Your task to perform on an android device: Show me popular videos on Youtube Image 0: 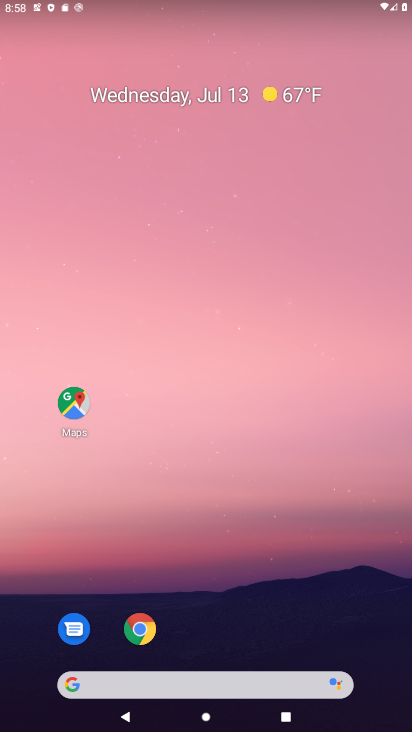
Step 0: drag from (210, 640) to (229, 101)
Your task to perform on an android device: Show me popular videos on Youtube Image 1: 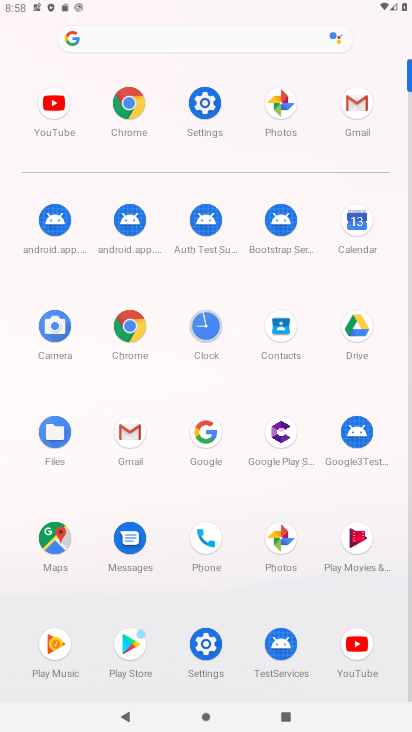
Step 1: click (362, 640)
Your task to perform on an android device: Show me popular videos on Youtube Image 2: 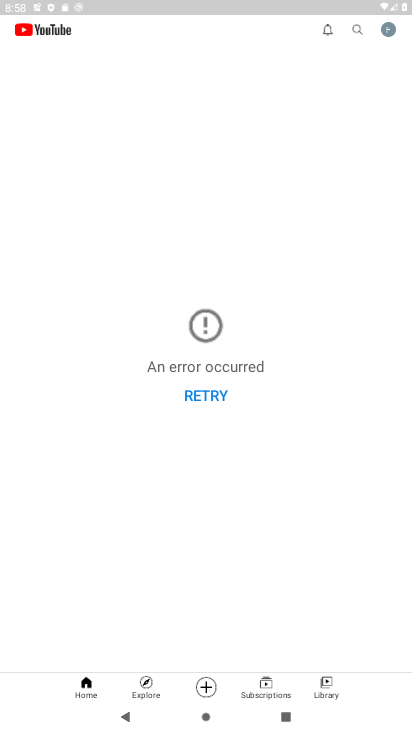
Step 2: click (209, 391)
Your task to perform on an android device: Show me popular videos on Youtube Image 3: 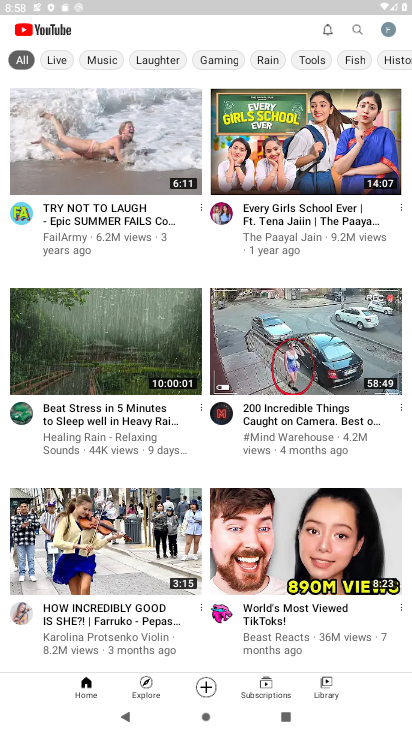
Step 3: click (146, 688)
Your task to perform on an android device: Show me popular videos on Youtube Image 4: 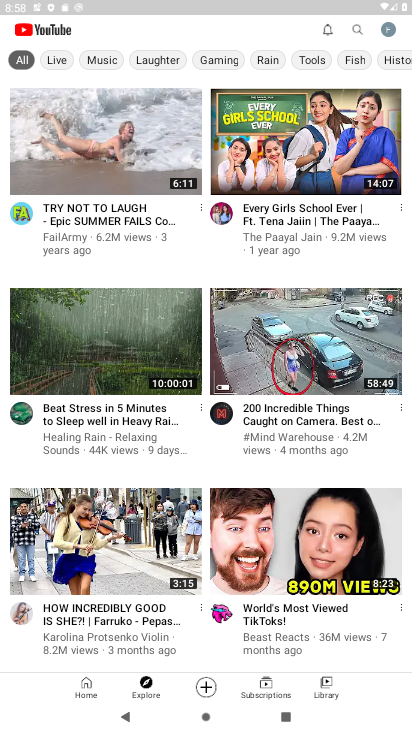
Step 4: click (23, 57)
Your task to perform on an android device: Show me popular videos on Youtube Image 5: 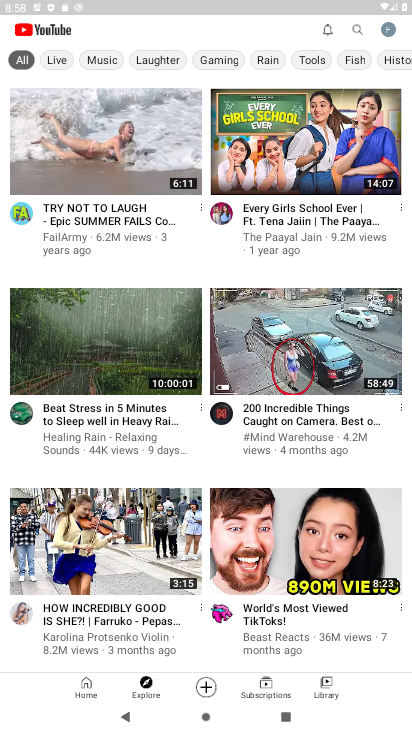
Step 5: drag from (121, 173) to (117, 521)
Your task to perform on an android device: Show me popular videos on Youtube Image 6: 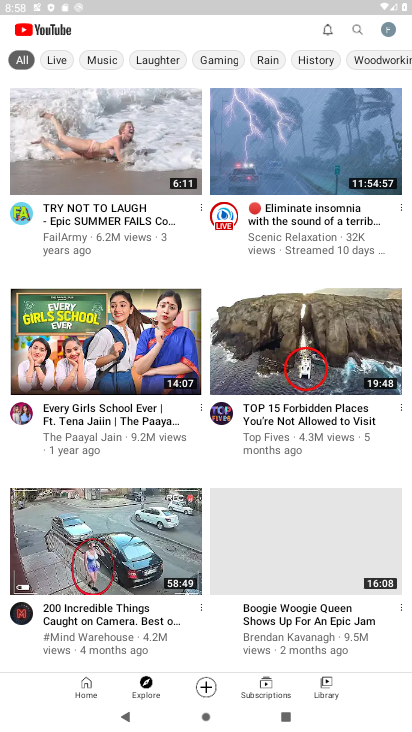
Step 6: drag from (112, 575) to (126, 286)
Your task to perform on an android device: Show me popular videos on Youtube Image 7: 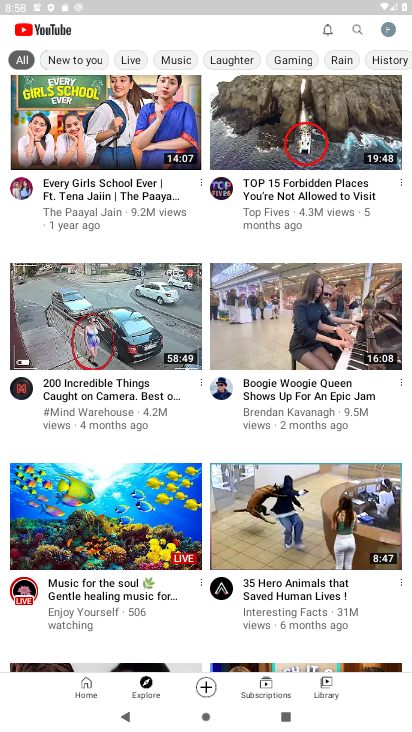
Step 7: click (92, 693)
Your task to perform on an android device: Show me popular videos on Youtube Image 8: 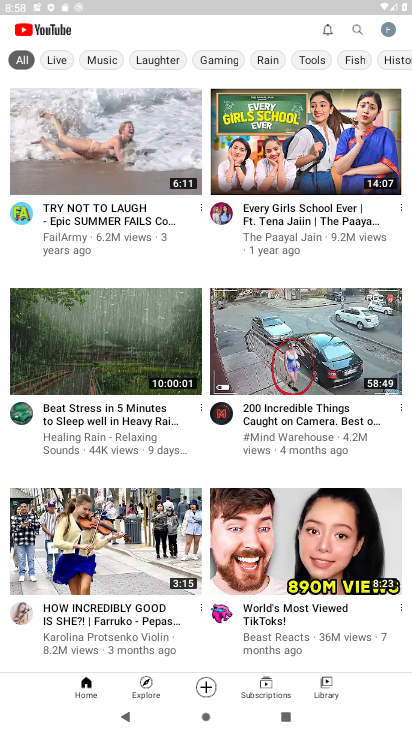
Step 8: drag from (175, 526) to (180, 368)
Your task to perform on an android device: Show me popular videos on Youtube Image 9: 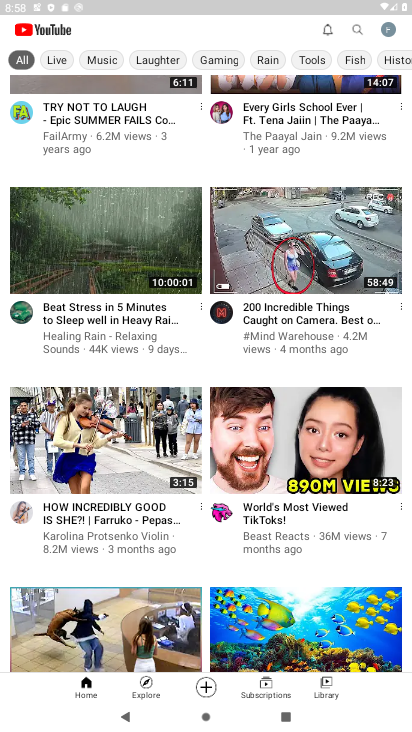
Step 9: drag from (162, 391) to (156, 717)
Your task to perform on an android device: Show me popular videos on Youtube Image 10: 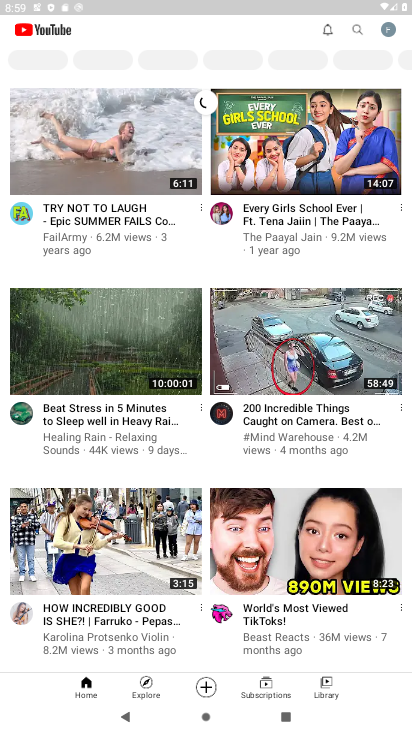
Step 10: click (19, 57)
Your task to perform on an android device: Show me popular videos on Youtube Image 11: 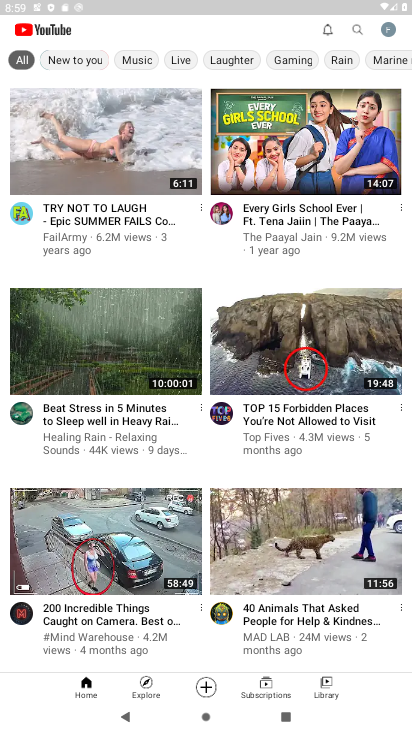
Step 11: click (19, 57)
Your task to perform on an android device: Show me popular videos on Youtube Image 12: 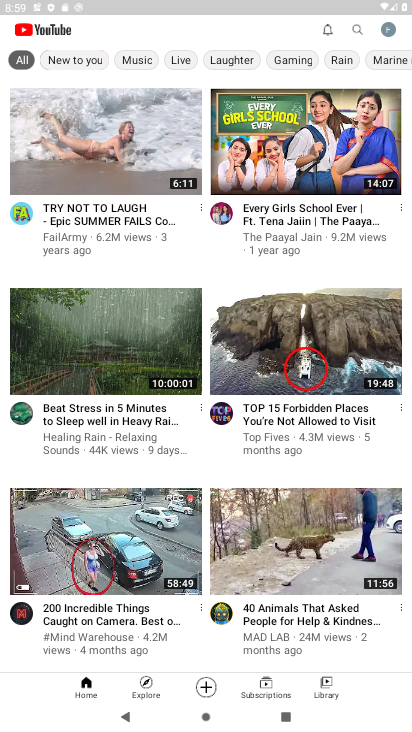
Step 12: click (153, 684)
Your task to perform on an android device: Show me popular videos on Youtube Image 13: 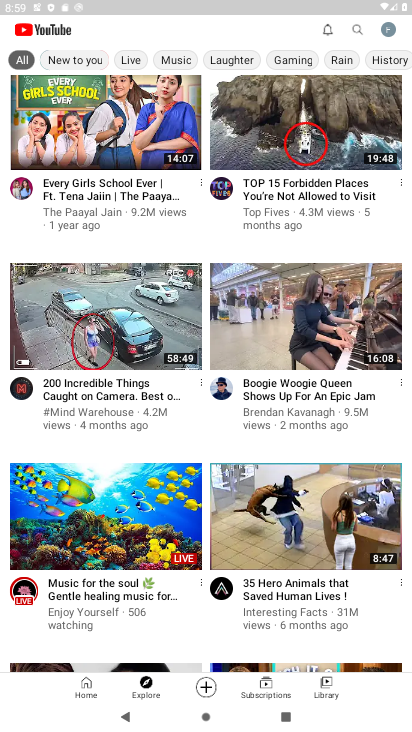
Step 13: task complete